Your task to perform on an android device: see tabs open on other devices in the chrome app Image 0: 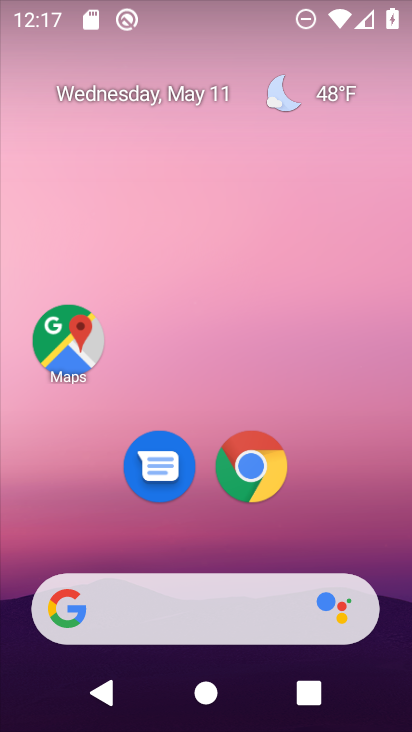
Step 0: click (252, 460)
Your task to perform on an android device: see tabs open on other devices in the chrome app Image 1: 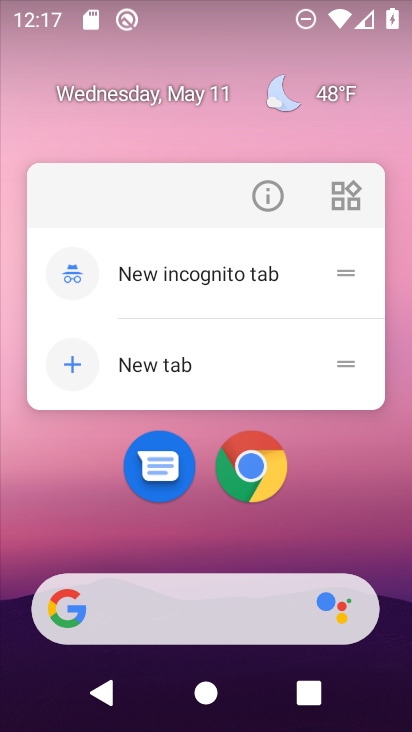
Step 1: click (266, 187)
Your task to perform on an android device: see tabs open on other devices in the chrome app Image 2: 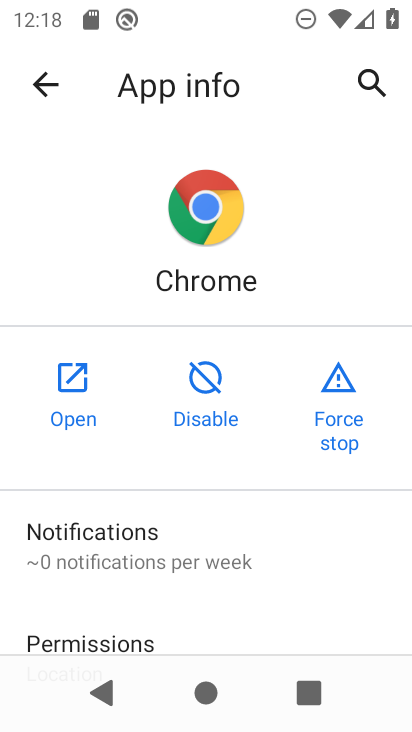
Step 2: press home button
Your task to perform on an android device: see tabs open on other devices in the chrome app Image 3: 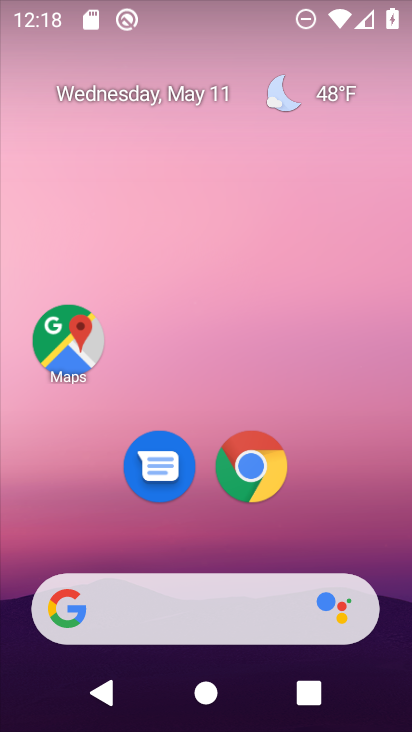
Step 3: click (249, 460)
Your task to perform on an android device: see tabs open on other devices in the chrome app Image 4: 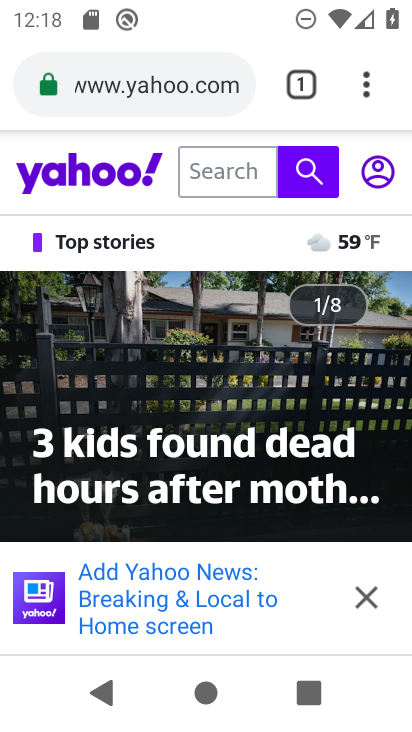
Step 4: click (368, 75)
Your task to perform on an android device: see tabs open on other devices in the chrome app Image 5: 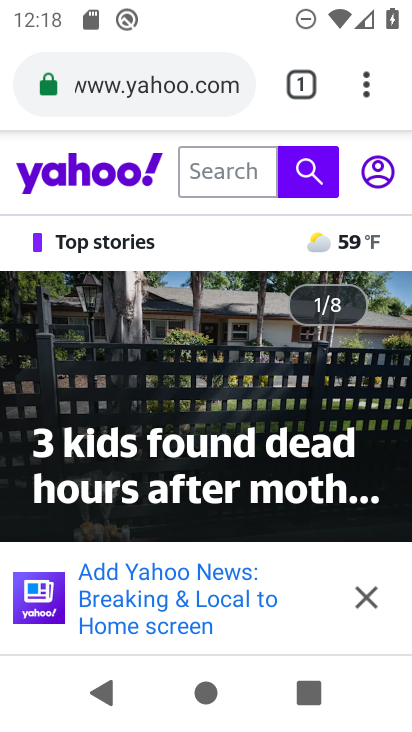
Step 5: click (364, 87)
Your task to perform on an android device: see tabs open on other devices in the chrome app Image 6: 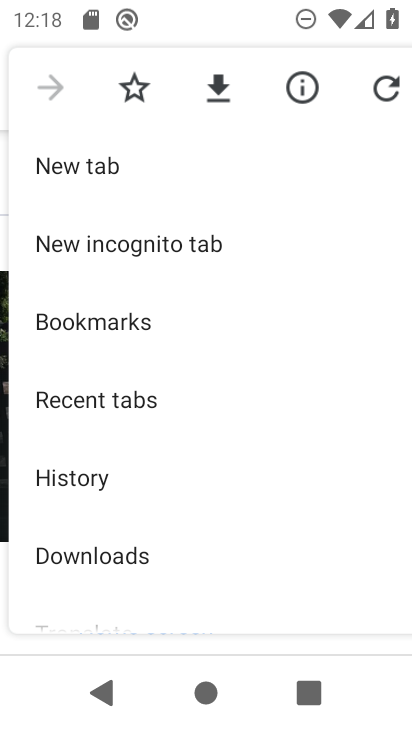
Step 6: click (172, 400)
Your task to perform on an android device: see tabs open on other devices in the chrome app Image 7: 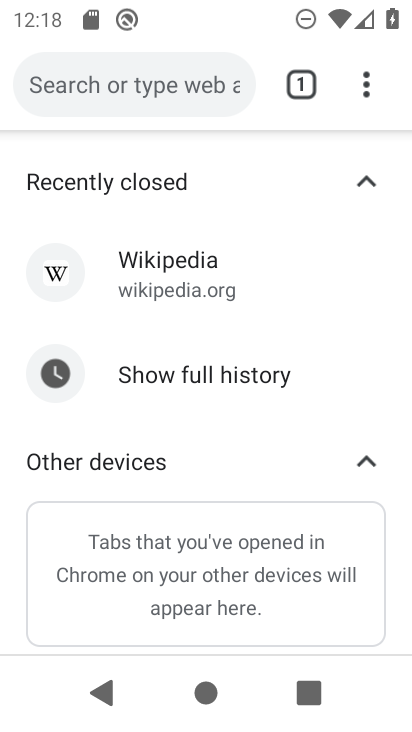
Step 7: task complete